Your task to perform on an android device: toggle pop-ups in chrome Image 0: 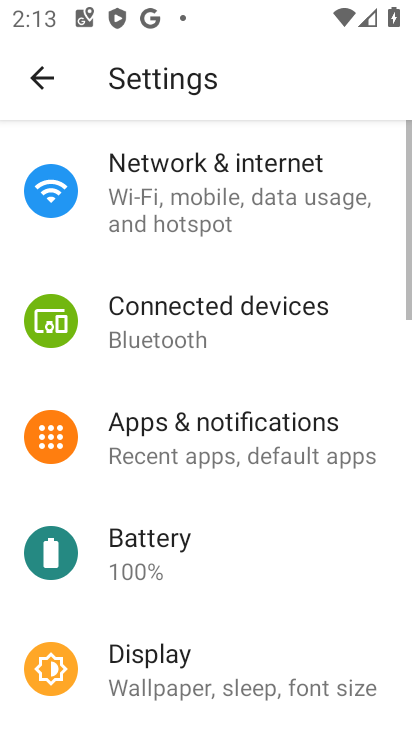
Step 0: press back button
Your task to perform on an android device: toggle pop-ups in chrome Image 1: 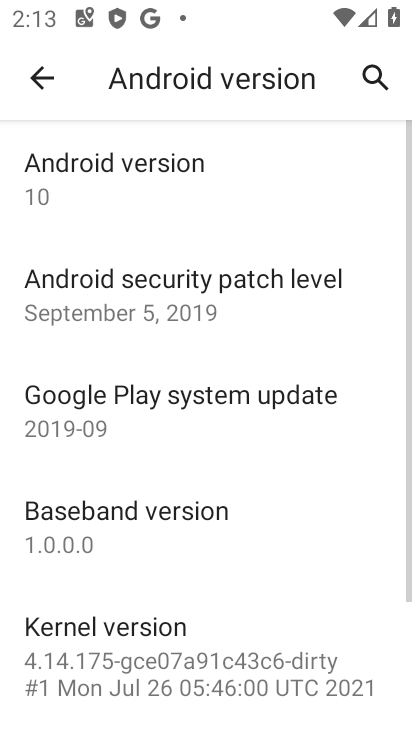
Step 1: press back button
Your task to perform on an android device: toggle pop-ups in chrome Image 2: 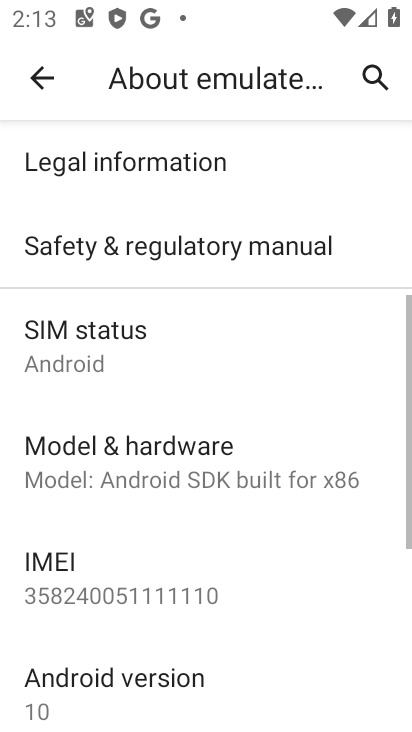
Step 2: press back button
Your task to perform on an android device: toggle pop-ups in chrome Image 3: 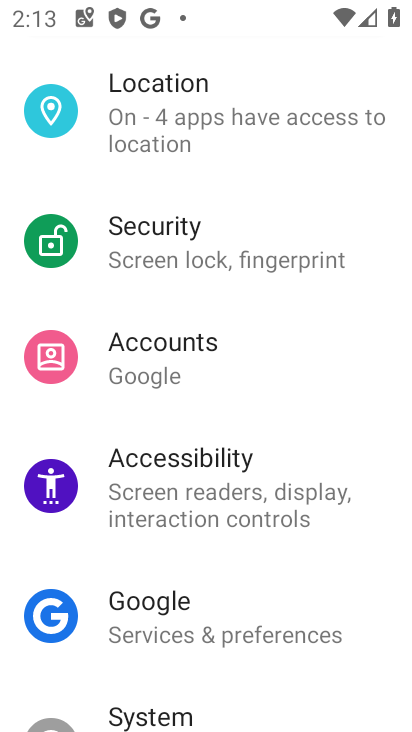
Step 3: press back button
Your task to perform on an android device: toggle pop-ups in chrome Image 4: 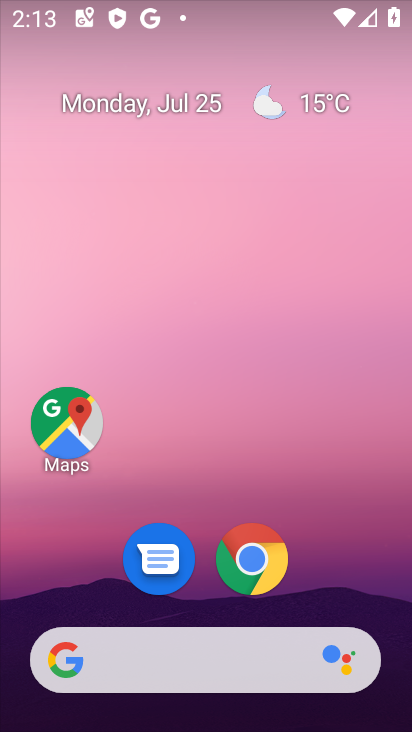
Step 4: click (264, 543)
Your task to perform on an android device: toggle pop-ups in chrome Image 5: 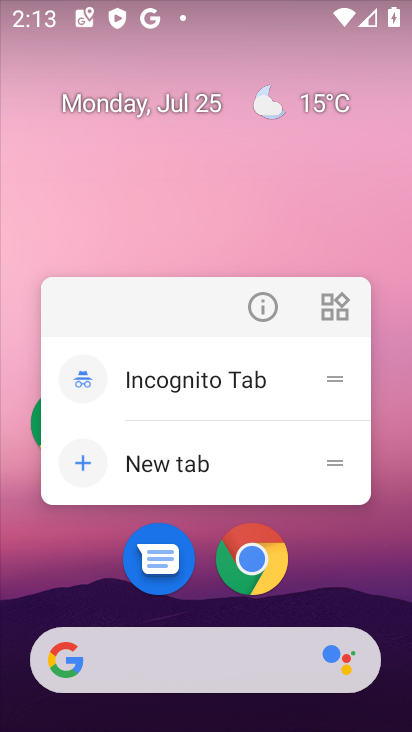
Step 5: click (258, 552)
Your task to perform on an android device: toggle pop-ups in chrome Image 6: 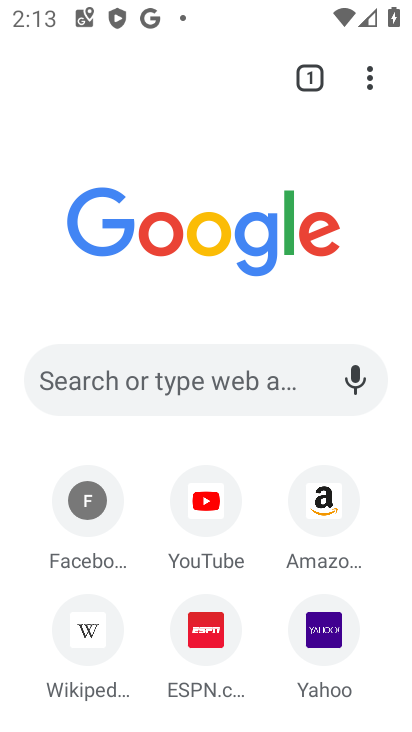
Step 6: drag from (374, 88) to (170, 627)
Your task to perform on an android device: toggle pop-ups in chrome Image 7: 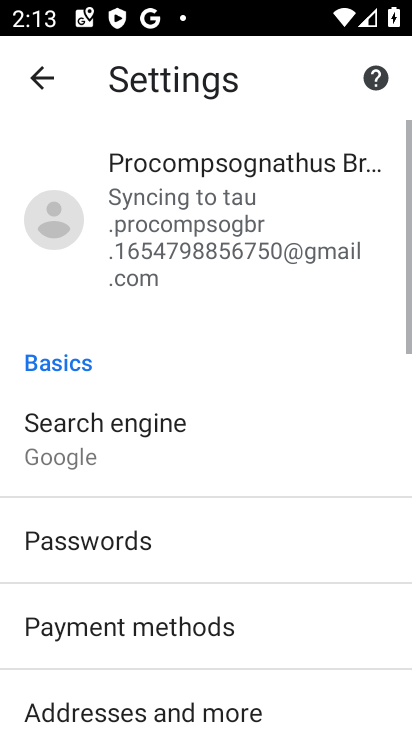
Step 7: drag from (173, 661) to (307, 0)
Your task to perform on an android device: toggle pop-ups in chrome Image 8: 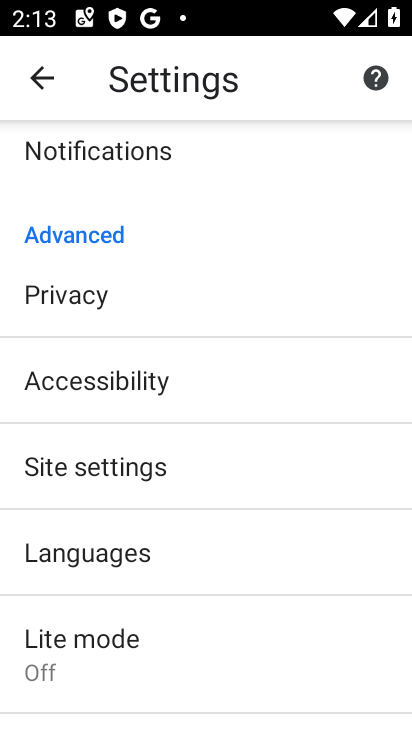
Step 8: click (84, 474)
Your task to perform on an android device: toggle pop-ups in chrome Image 9: 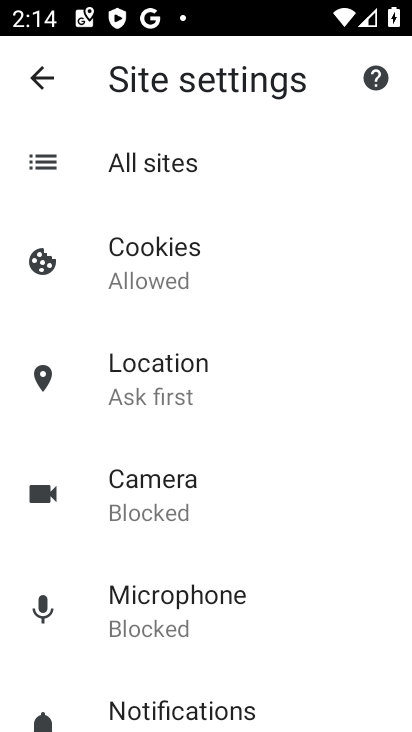
Step 9: drag from (220, 618) to (357, 44)
Your task to perform on an android device: toggle pop-ups in chrome Image 10: 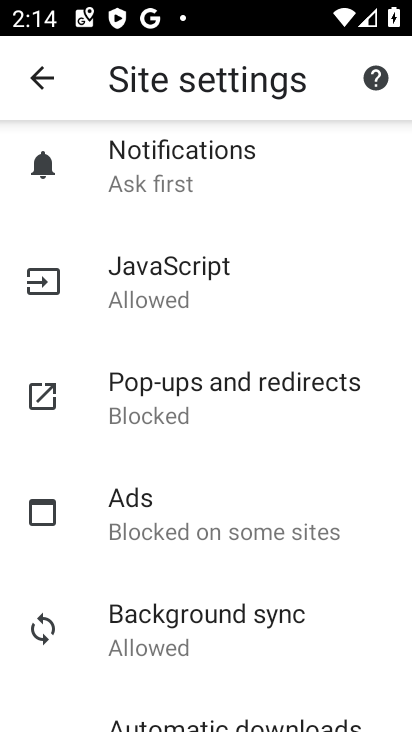
Step 10: click (194, 389)
Your task to perform on an android device: toggle pop-ups in chrome Image 11: 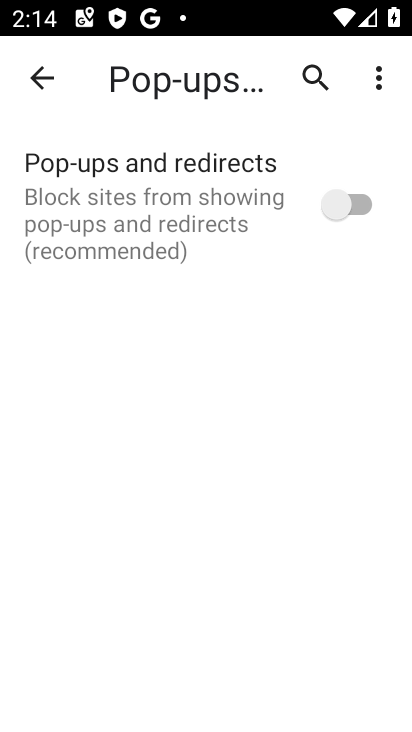
Step 11: click (343, 195)
Your task to perform on an android device: toggle pop-ups in chrome Image 12: 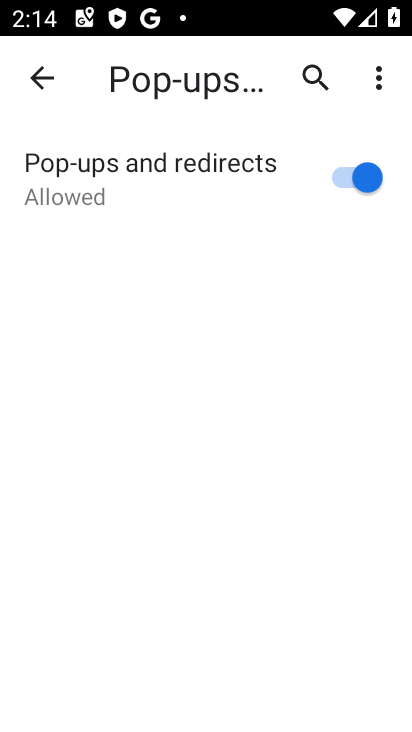
Step 12: task complete